Your task to perform on an android device: find photos in the google photos app Image 0: 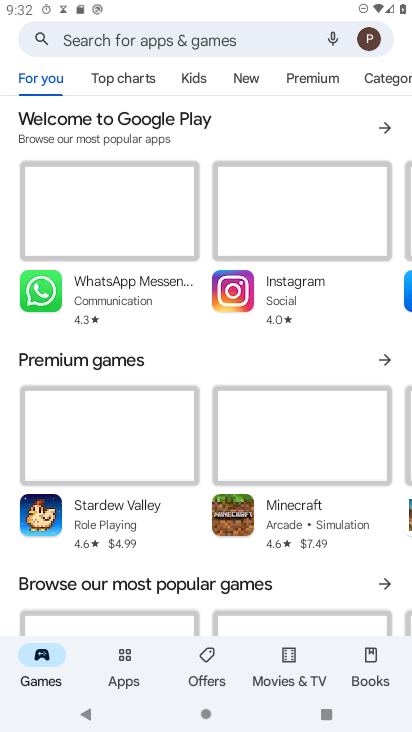
Step 0: press back button
Your task to perform on an android device: find photos in the google photos app Image 1: 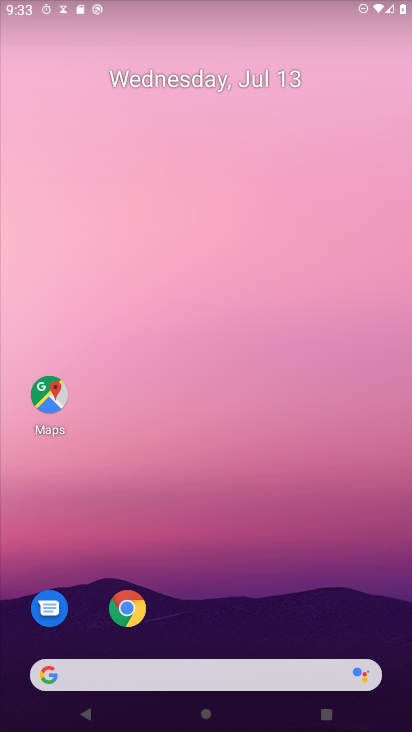
Step 1: drag from (238, 704) to (187, 200)
Your task to perform on an android device: find photos in the google photos app Image 2: 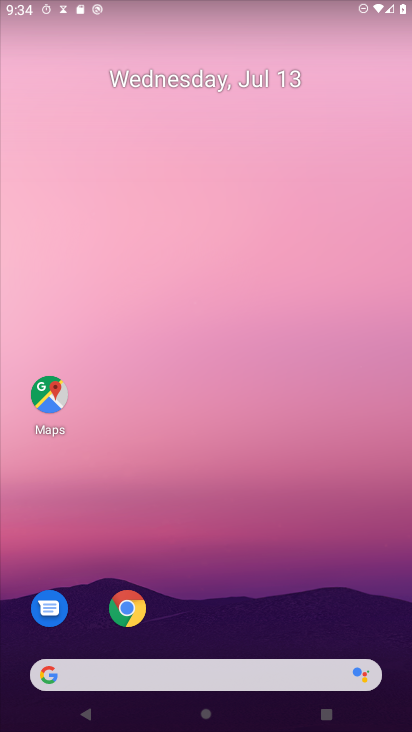
Step 2: drag from (274, 411) to (248, 320)
Your task to perform on an android device: find photos in the google photos app Image 3: 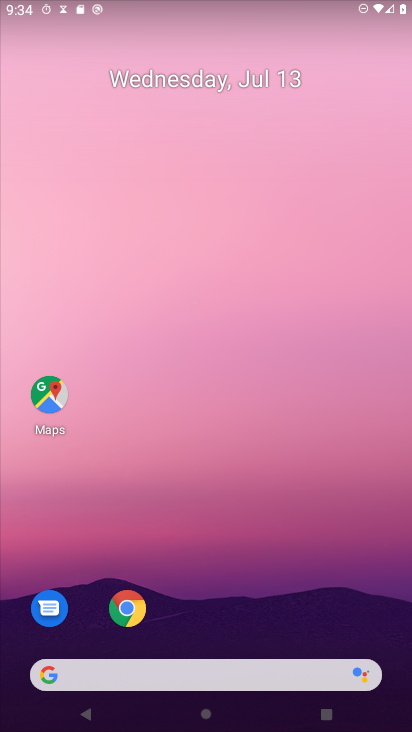
Step 3: drag from (233, 666) to (145, 274)
Your task to perform on an android device: find photos in the google photos app Image 4: 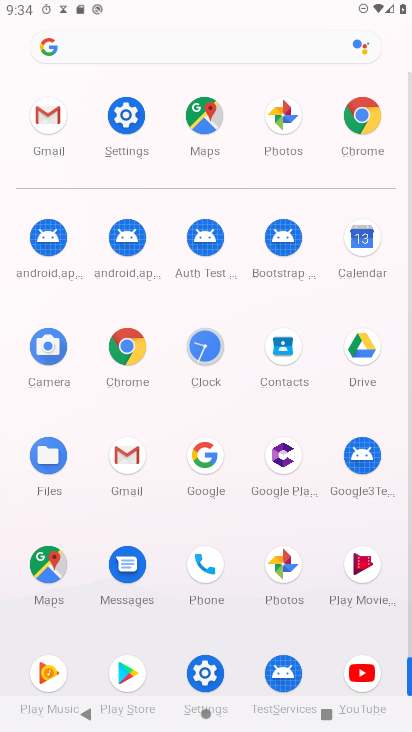
Step 4: click (212, 349)
Your task to perform on an android device: find photos in the google photos app Image 5: 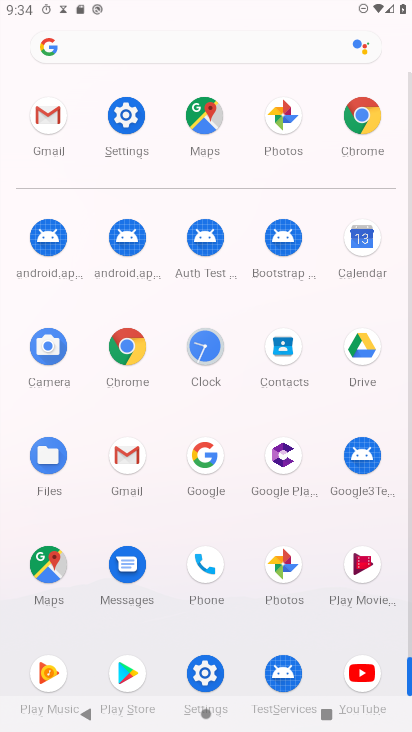
Step 5: drag from (252, 603) to (253, 267)
Your task to perform on an android device: find photos in the google photos app Image 6: 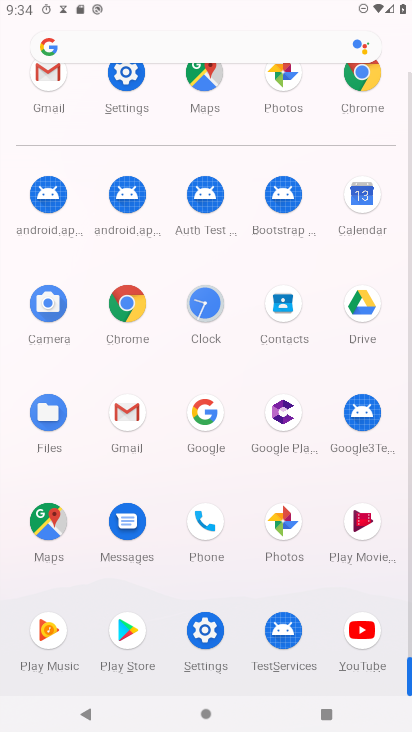
Step 6: click (269, 565)
Your task to perform on an android device: find photos in the google photos app Image 7: 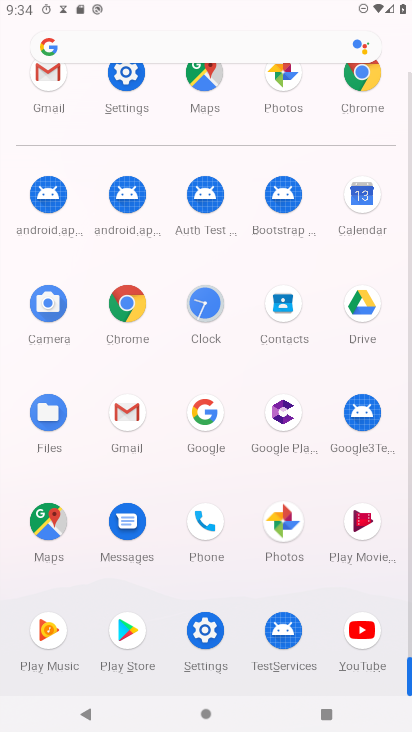
Step 7: click (281, 542)
Your task to perform on an android device: find photos in the google photos app Image 8: 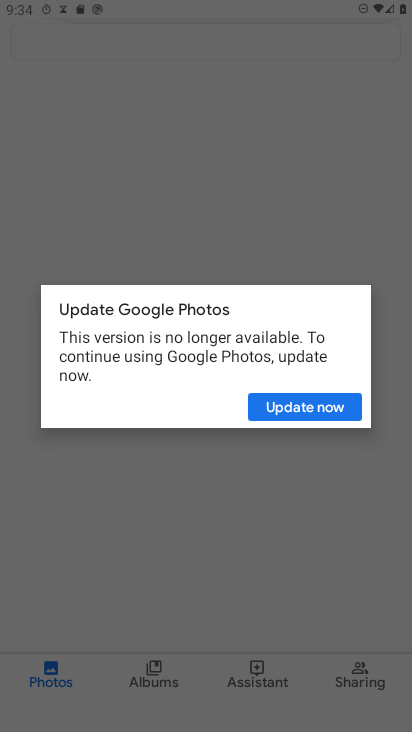
Step 8: click (287, 529)
Your task to perform on an android device: find photos in the google photos app Image 9: 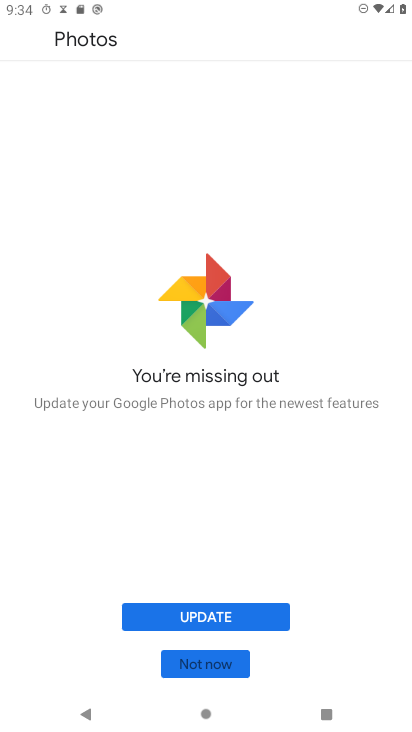
Step 9: click (204, 668)
Your task to perform on an android device: find photos in the google photos app Image 10: 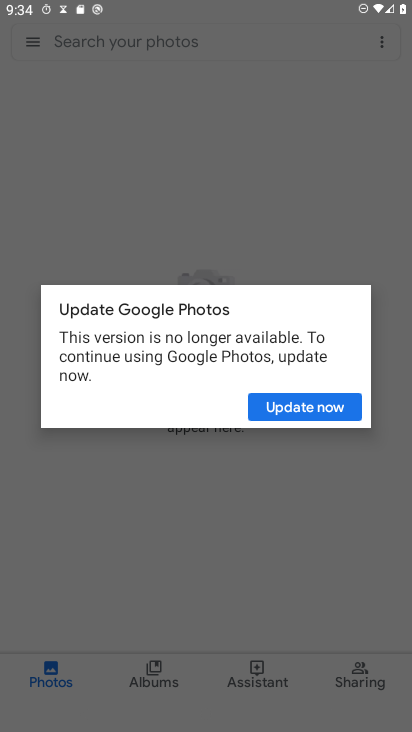
Step 10: task complete